Your task to perform on an android device: turn on javascript in the chrome app Image 0: 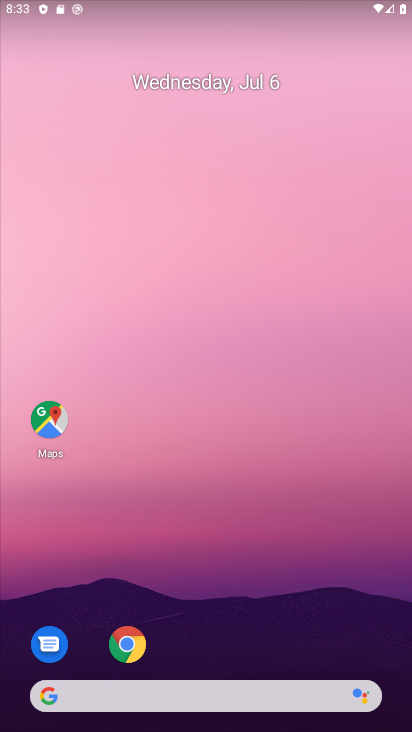
Step 0: drag from (191, 664) to (181, 185)
Your task to perform on an android device: turn on javascript in the chrome app Image 1: 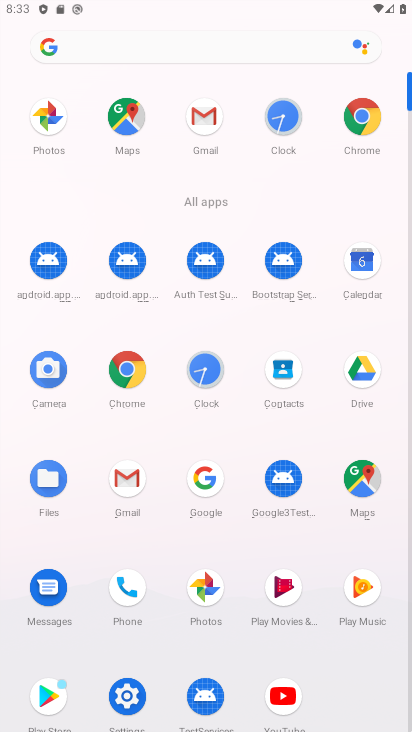
Step 1: click (352, 112)
Your task to perform on an android device: turn on javascript in the chrome app Image 2: 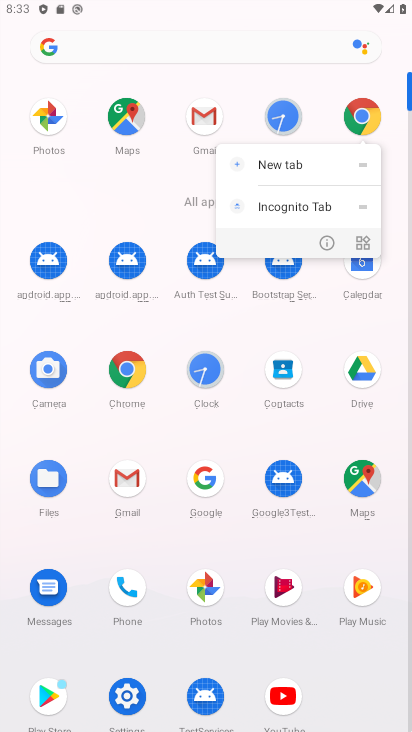
Step 2: click (356, 116)
Your task to perform on an android device: turn on javascript in the chrome app Image 3: 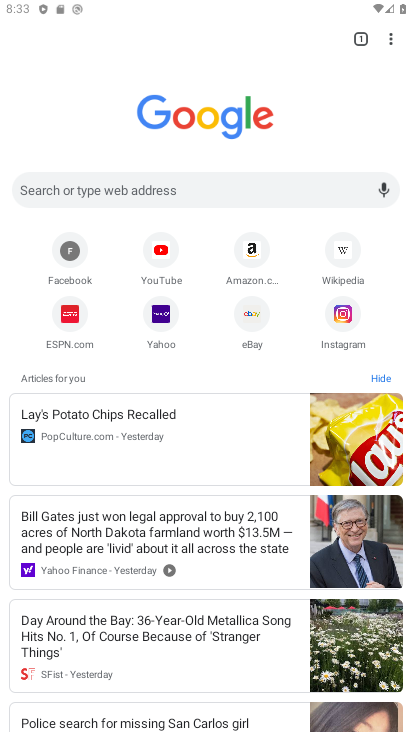
Step 3: drag from (389, 39) to (253, 321)
Your task to perform on an android device: turn on javascript in the chrome app Image 4: 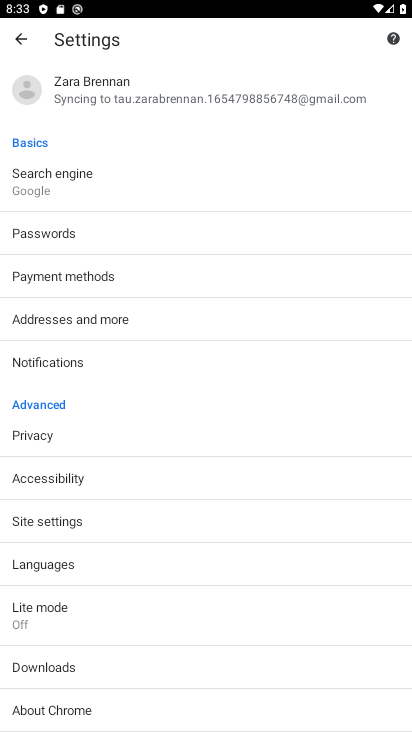
Step 4: drag from (139, 639) to (132, 214)
Your task to perform on an android device: turn on javascript in the chrome app Image 5: 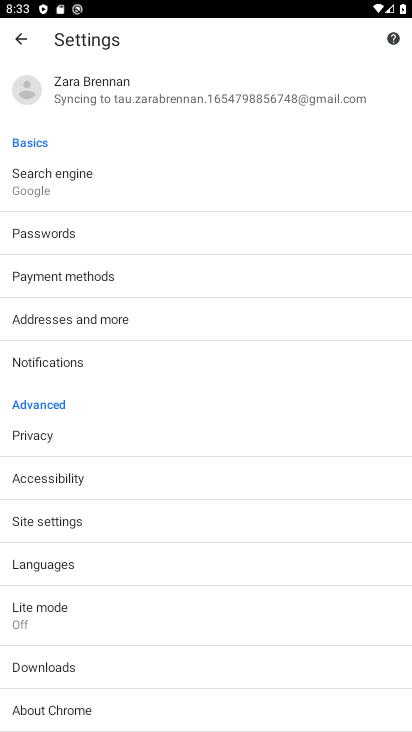
Step 5: click (64, 514)
Your task to perform on an android device: turn on javascript in the chrome app Image 6: 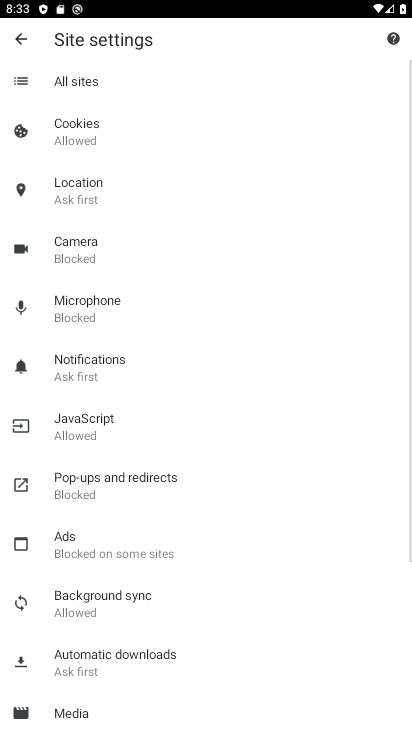
Step 6: click (77, 429)
Your task to perform on an android device: turn on javascript in the chrome app Image 7: 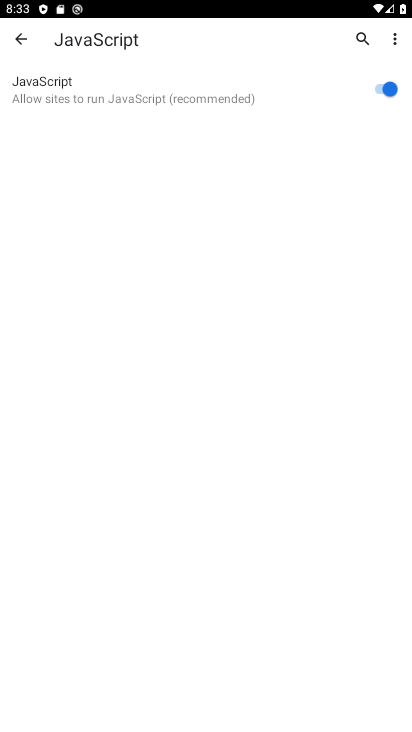
Step 7: task complete